Your task to perform on an android device: turn off data saver in the chrome app Image 0: 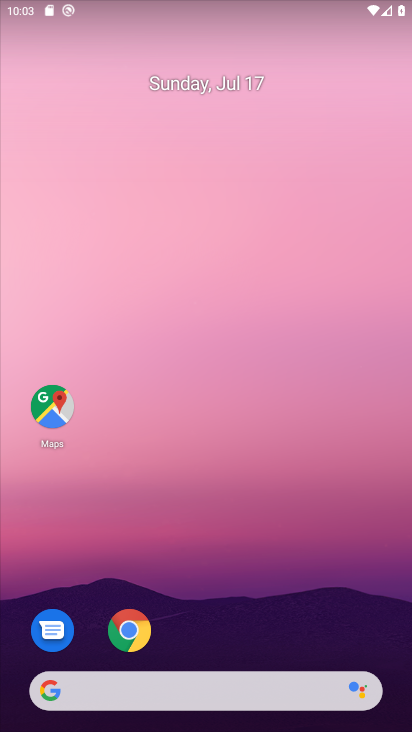
Step 0: drag from (218, 642) to (252, 53)
Your task to perform on an android device: turn off data saver in the chrome app Image 1: 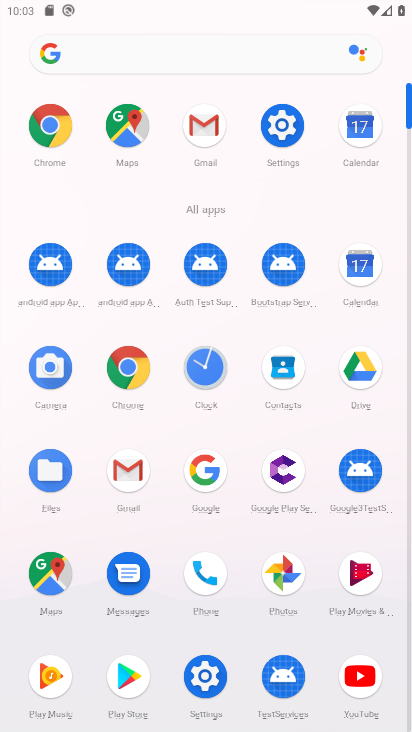
Step 1: click (123, 392)
Your task to perform on an android device: turn off data saver in the chrome app Image 2: 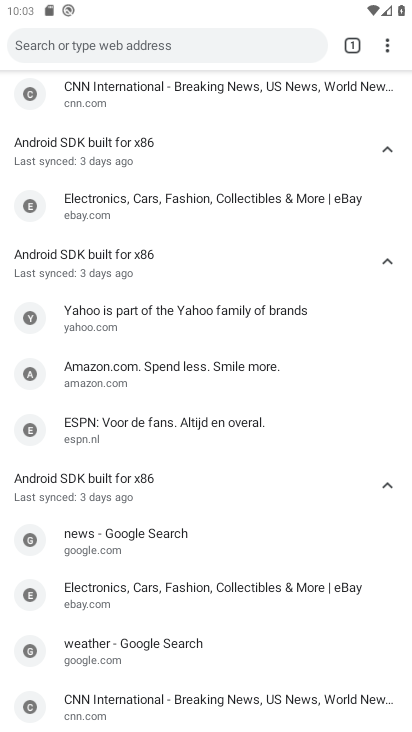
Step 2: click (388, 45)
Your task to perform on an android device: turn off data saver in the chrome app Image 3: 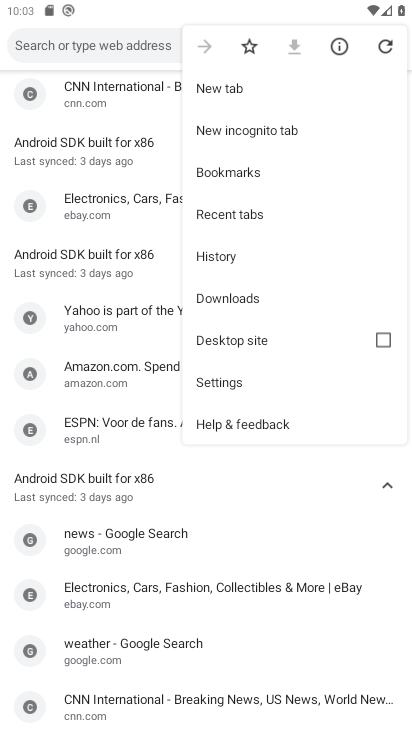
Step 3: click (214, 384)
Your task to perform on an android device: turn off data saver in the chrome app Image 4: 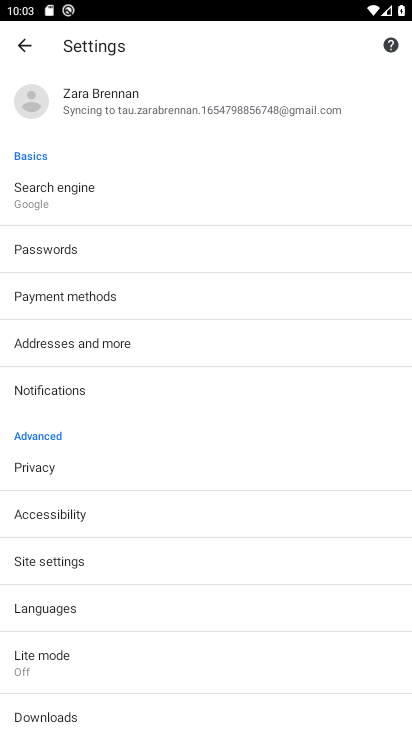
Step 4: click (41, 678)
Your task to perform on an android device: turn off data saver in the chrome app Image 5: 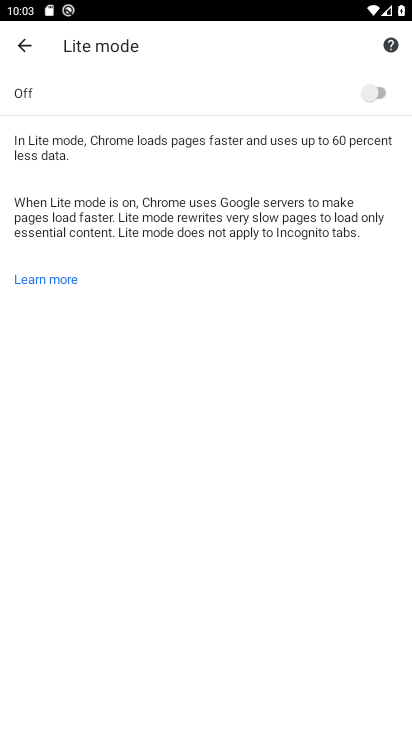
Step 5: task complete